Your task to perform on an android device: move an email to a new category in the gmail app Image 0: 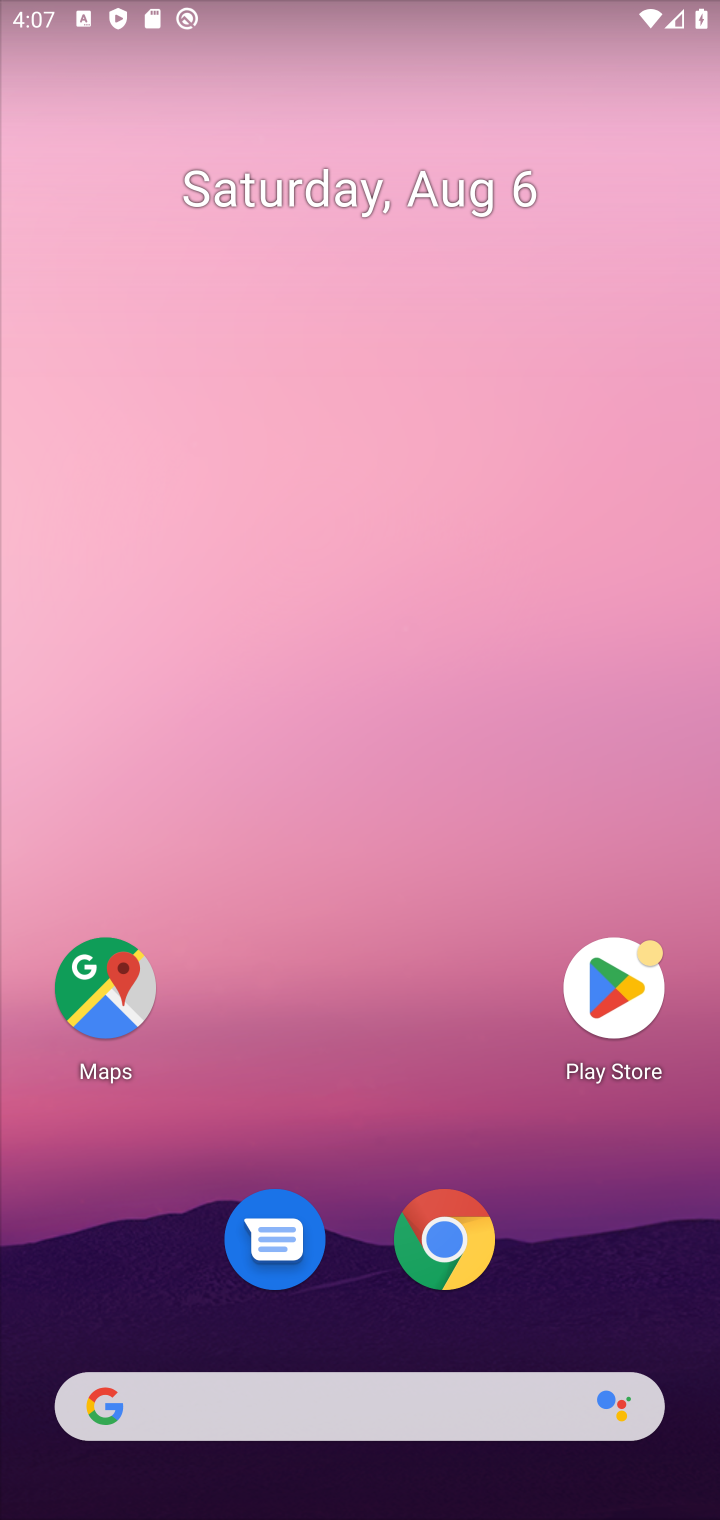
Step 0: drag from (444, 1397) to (546, 216)
Your task to perform on an android device: move an email to a new category in the gmail app Image 1: 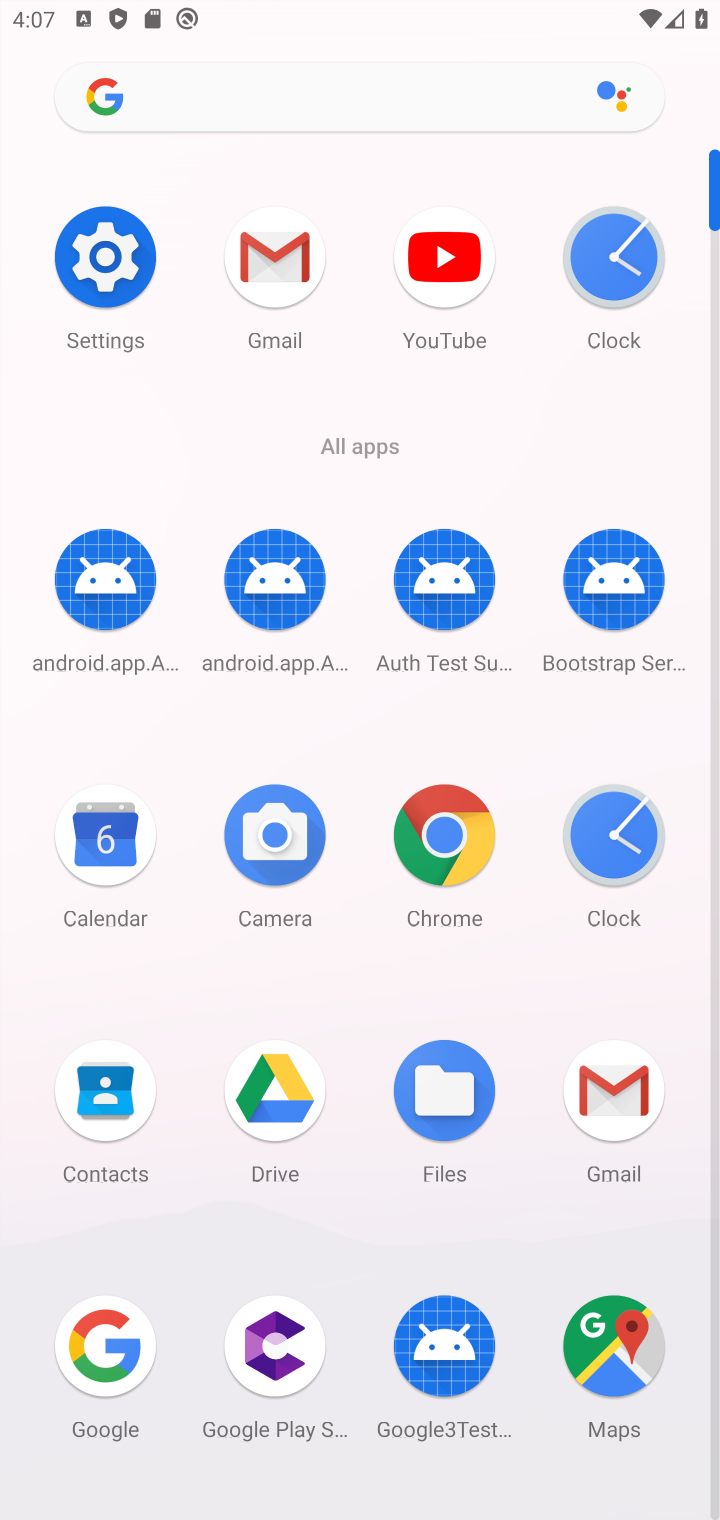
Step 1: click (600, 1097)
Your task to perform on an android device: move an email to a new category in the gmail app Image 2: 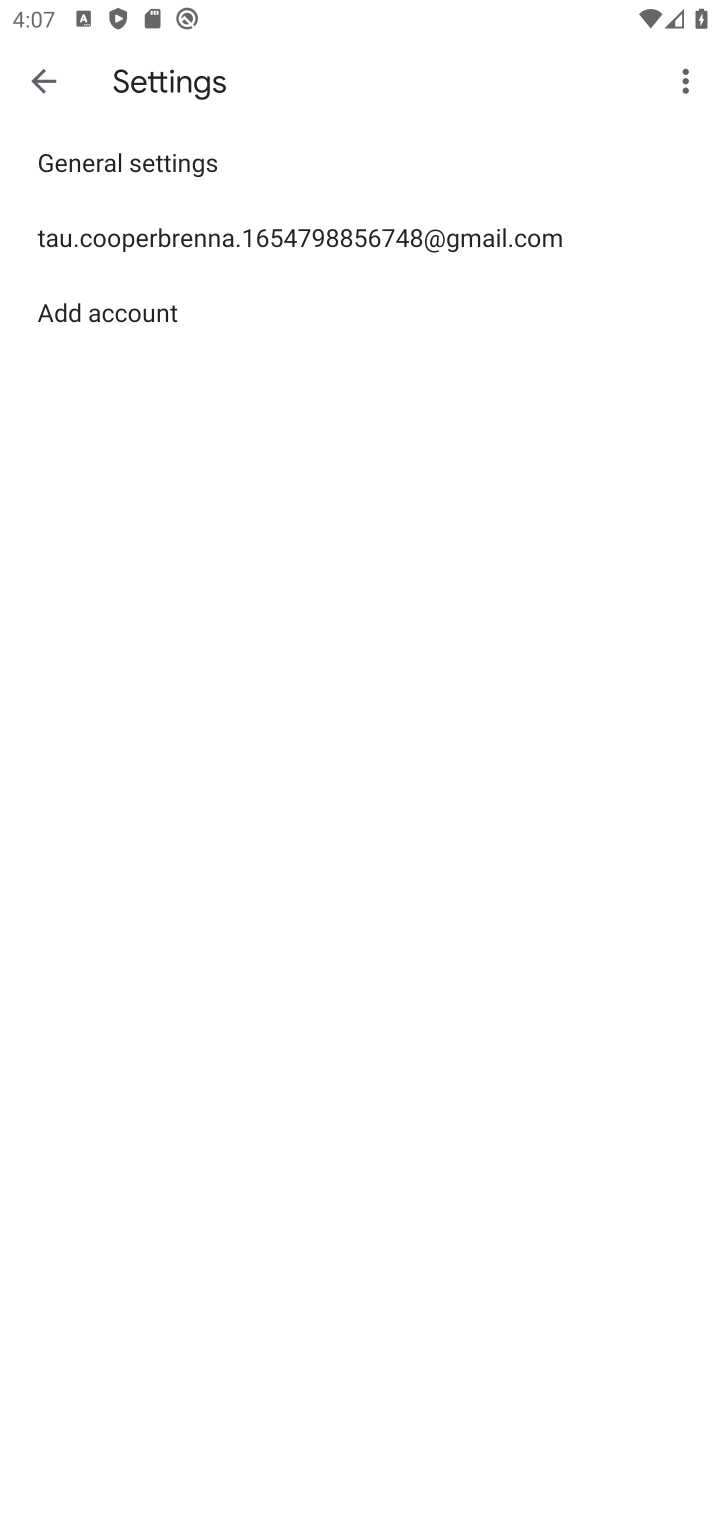
Step 2: press back button
Your task to perform on an android device: move an email to a new category in the gmail app Image 3: 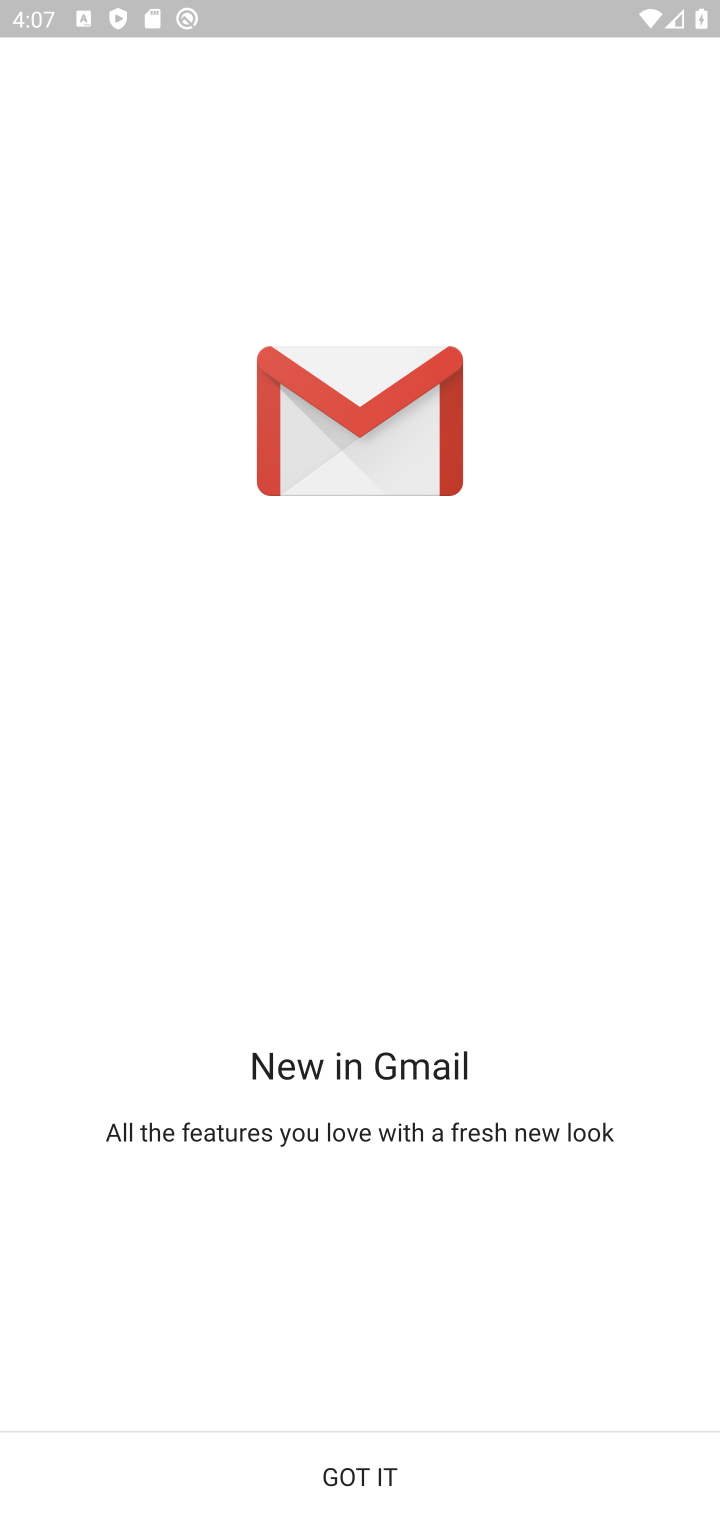
Step 3: click (393, 1453)
Your task to perform on an android device: move an email to a new category in the gmail app Image 4: 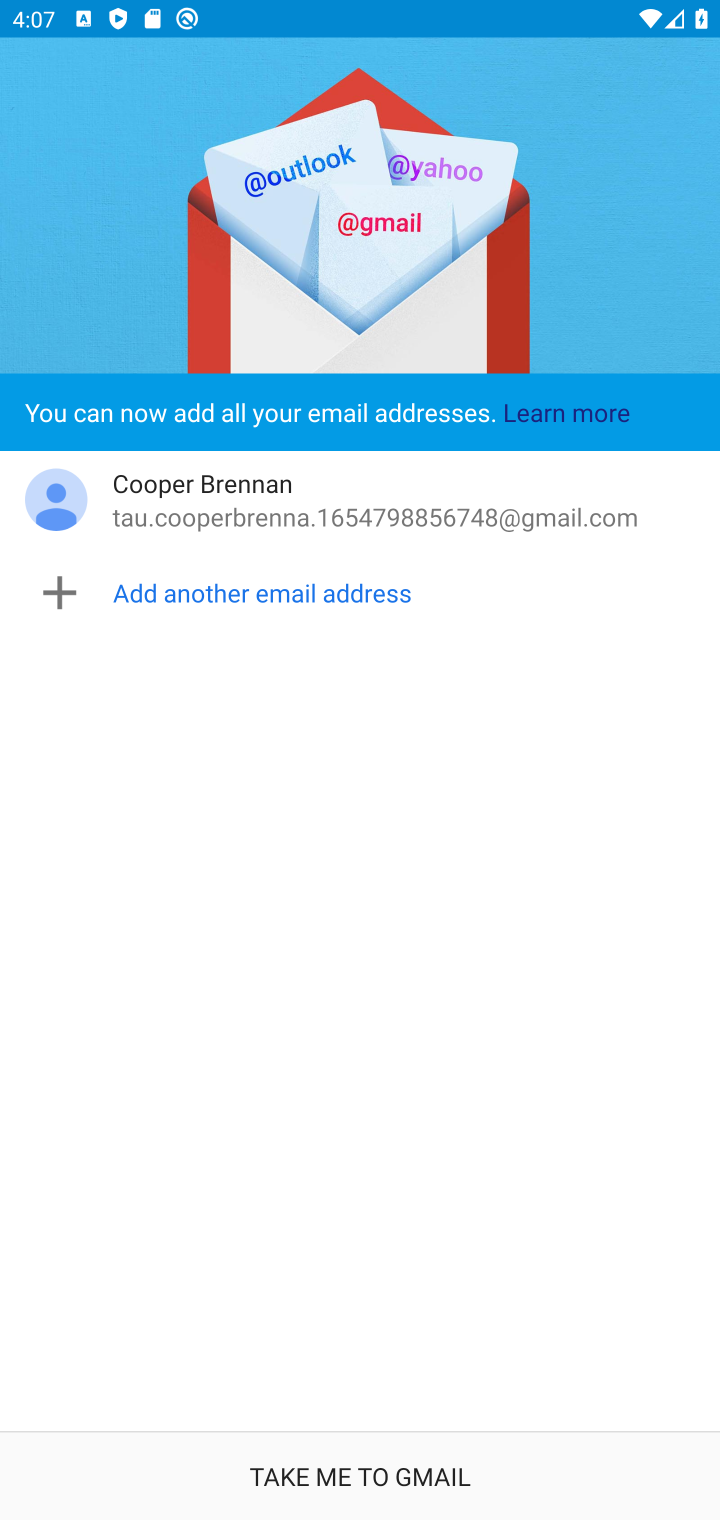
Step 4: click (393, 1474)
Your task to perform on an android device: move an email to a new category in the gmail app Image 5: 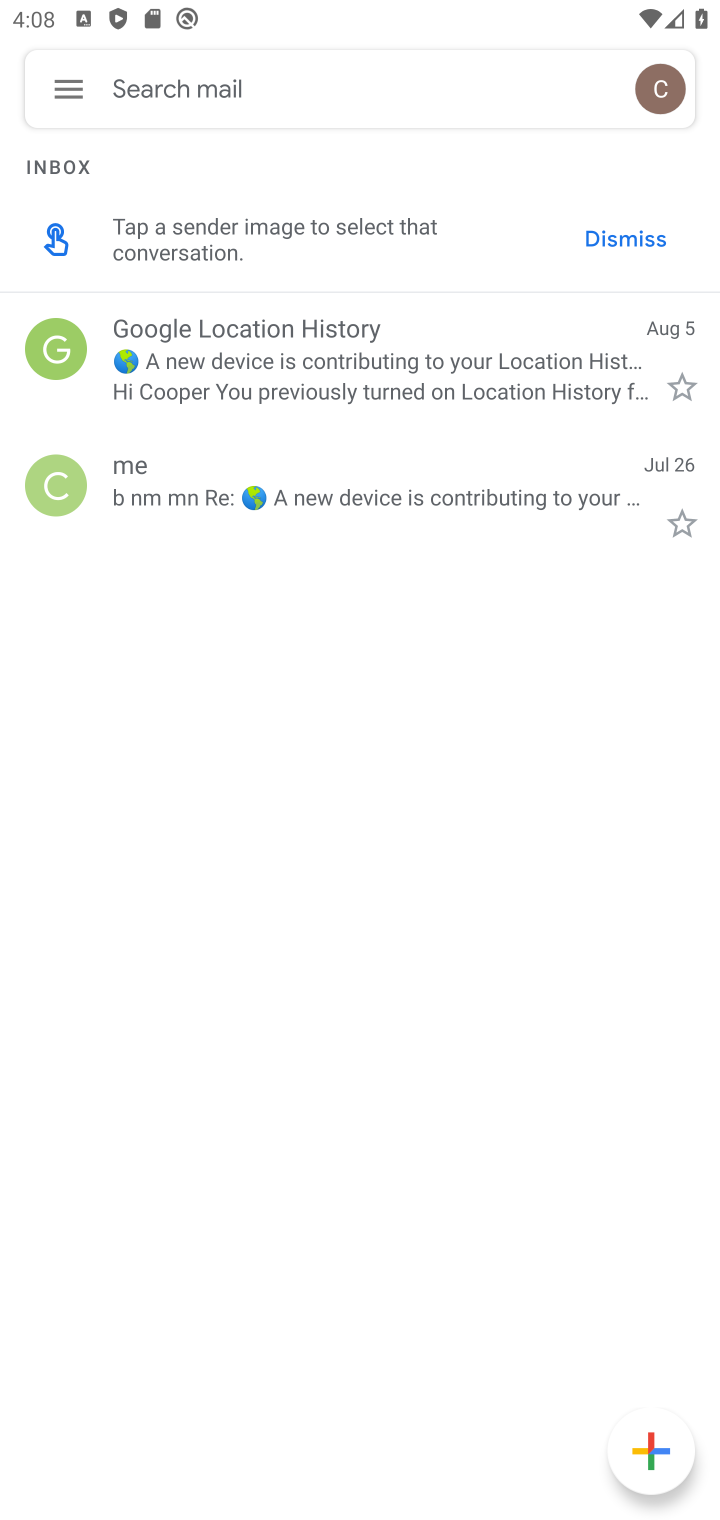
Step 5: click (75, 82)
Your task to perform on an android device: move an email to a new category in the gmail app Image 6: 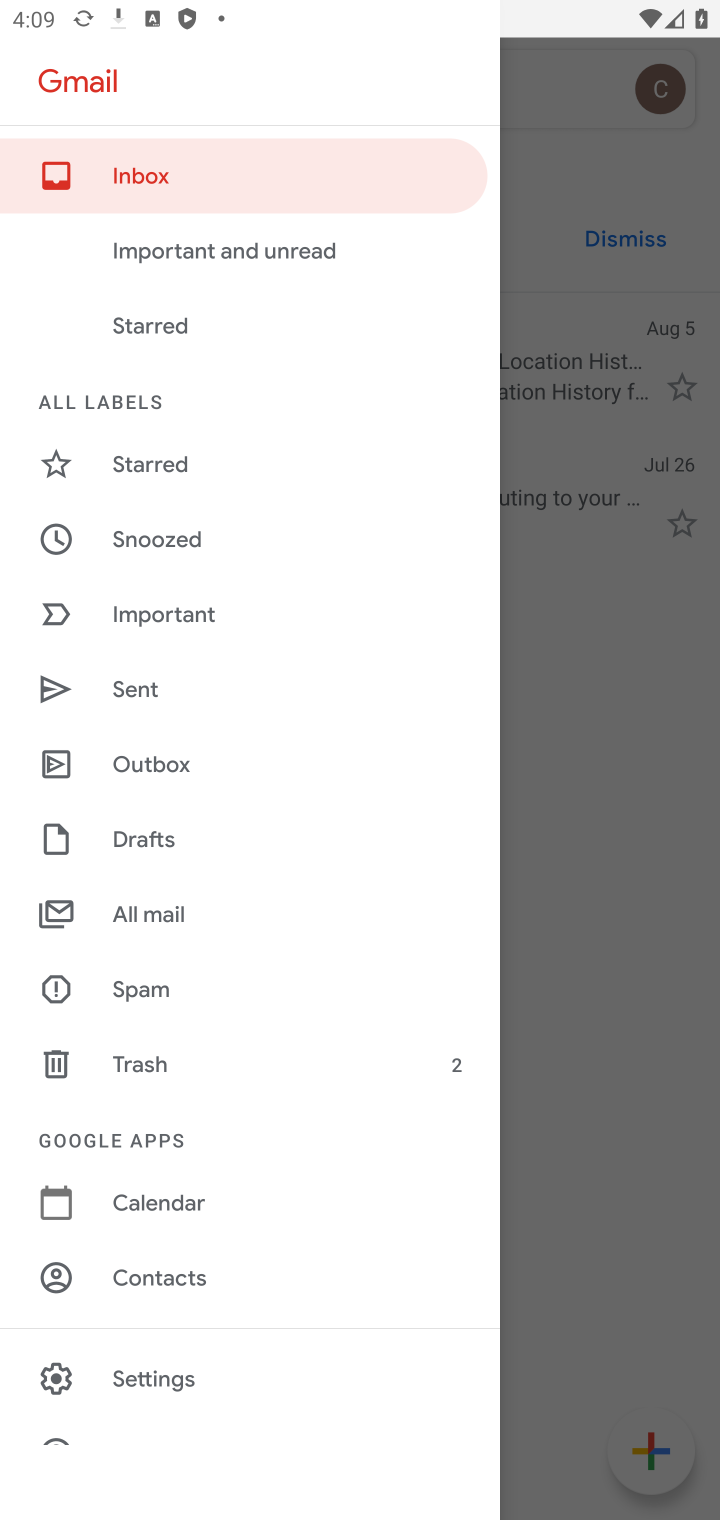
Step 6: click (706, 574)
Your task to perform on an android device: move an email to a new category in the gmail app Image 7: 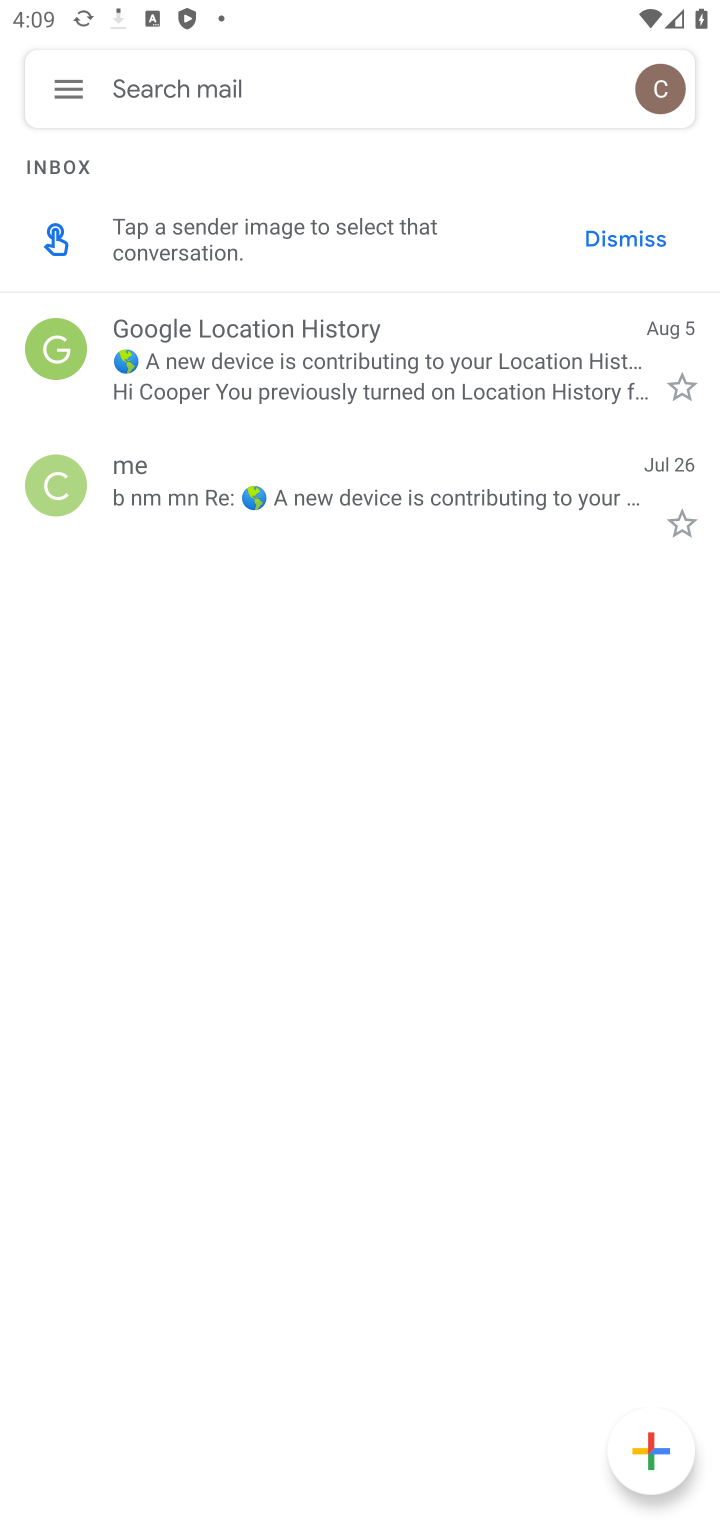
Step 7: click (602, 348)
Your task to perform on an android device: move an email to a new category in the gmail app Image 8: 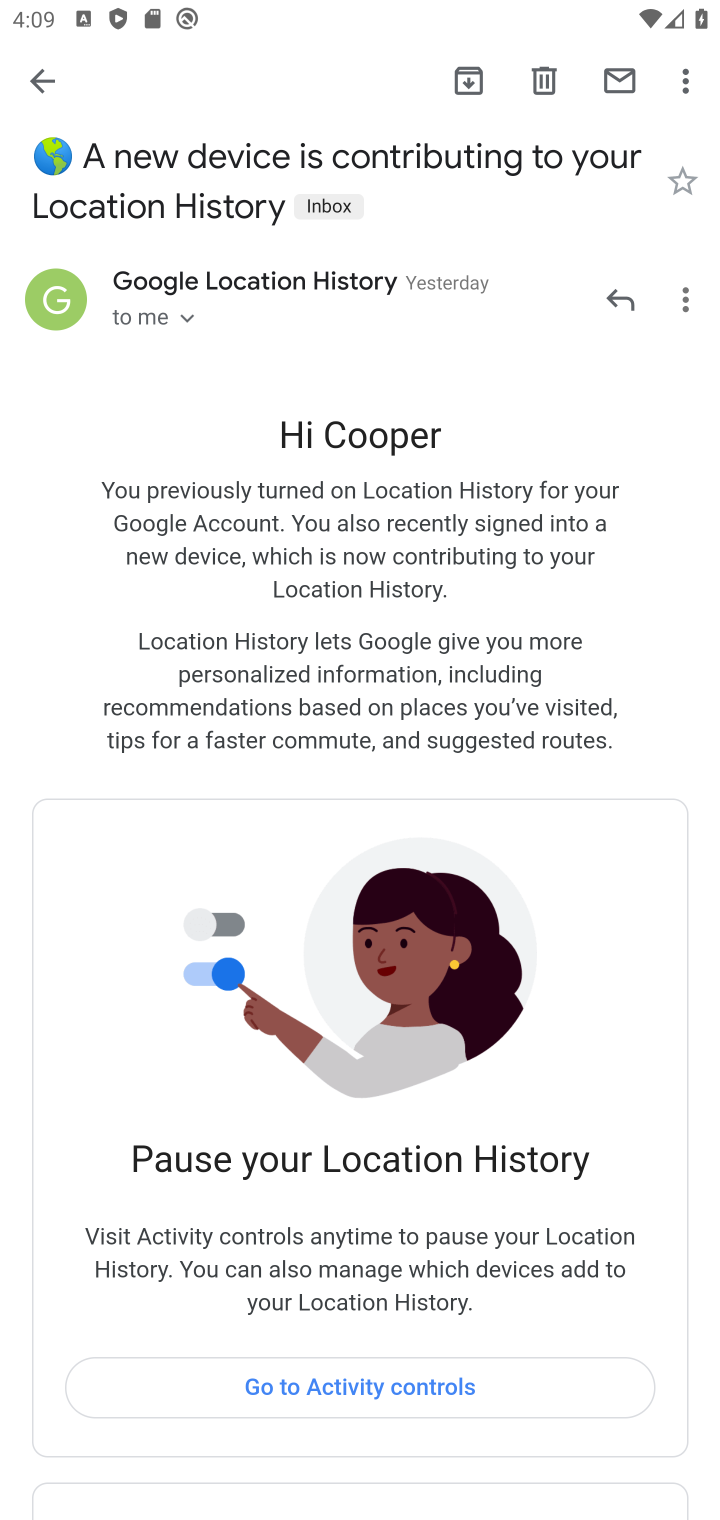
Step 8: click (677, 72)
Your task to perform on an android device: move an email to a new category in the gmail app Image 9: 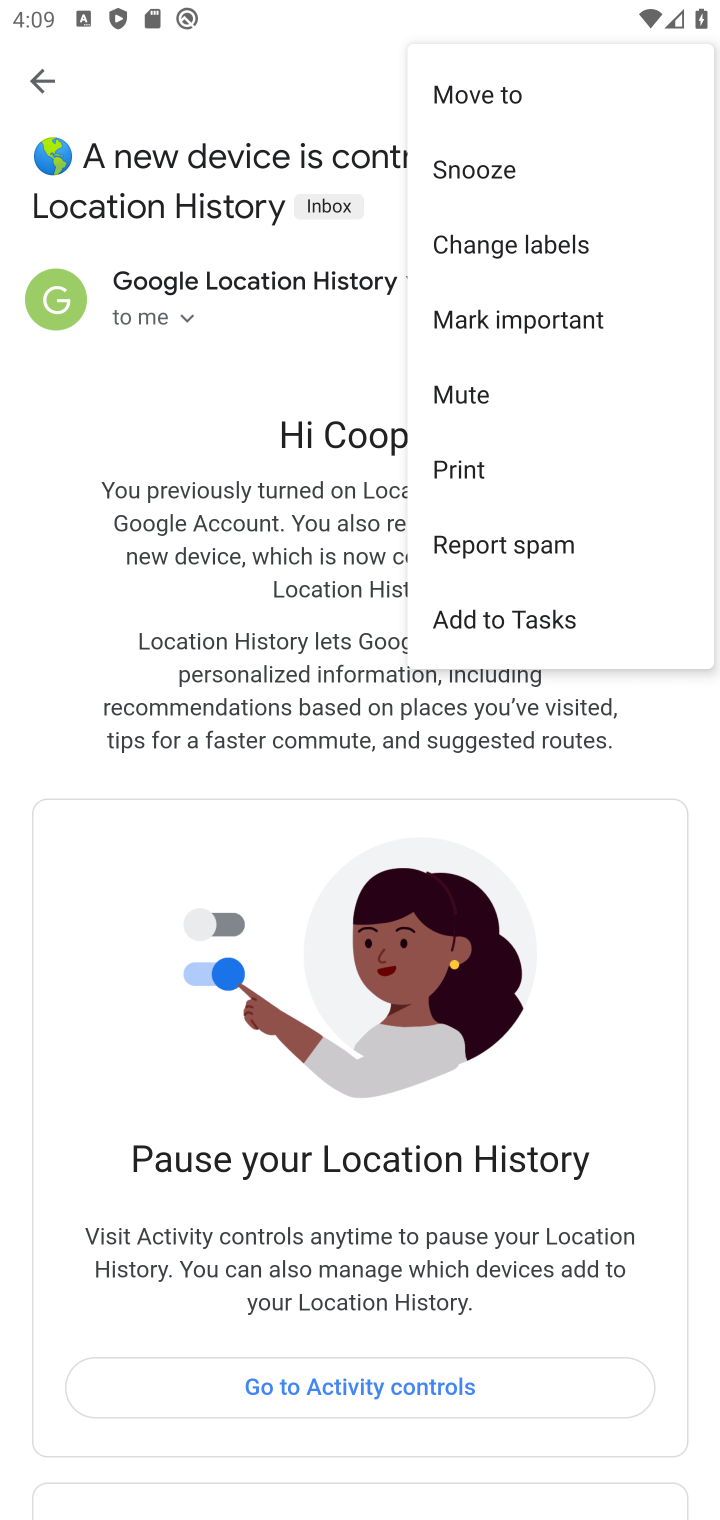
Step 9: click (492, 216)
Your task to perform on an android device: move an email to a new category in the gmail app Image 10: 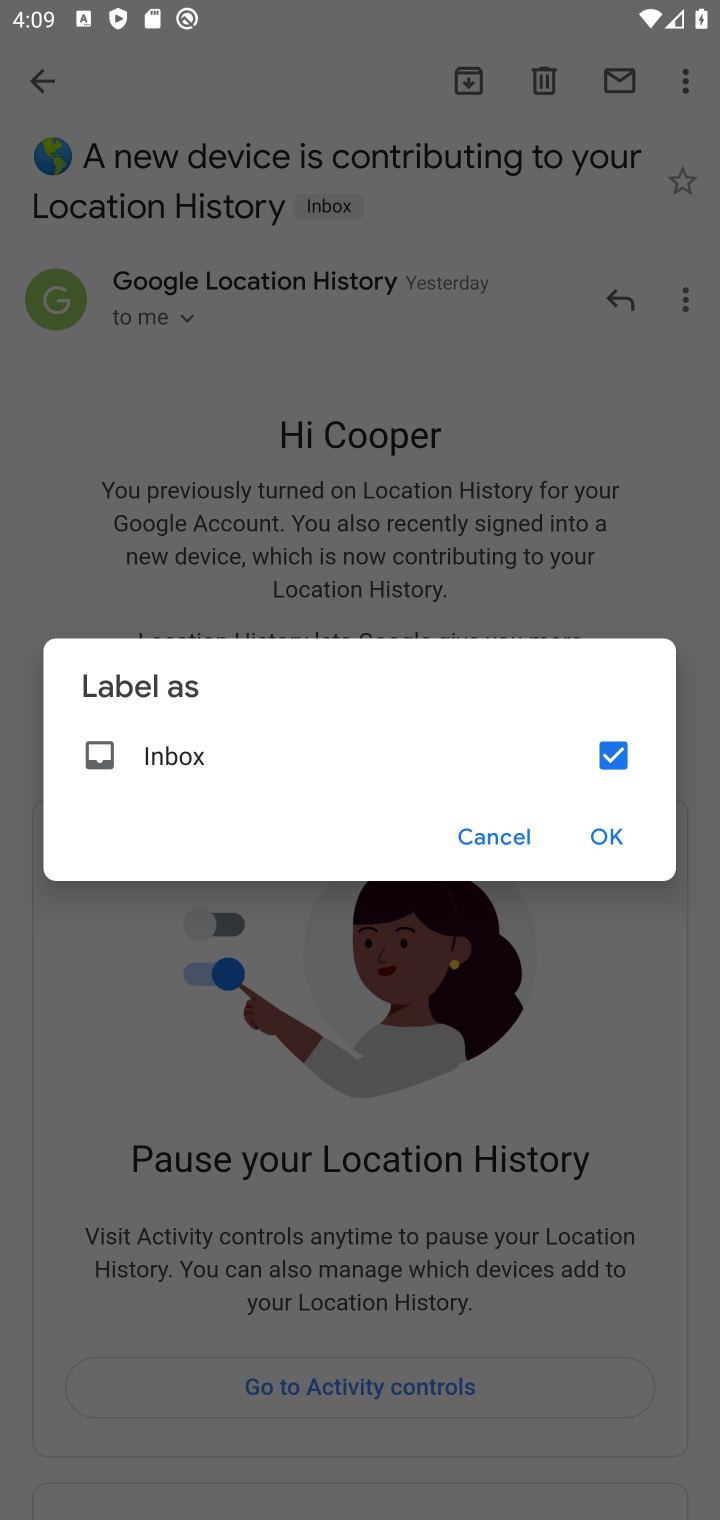
Step 10: click (606, 835)
Your task to perform on an android device: move an email to a new category in the gmail app Image 11: 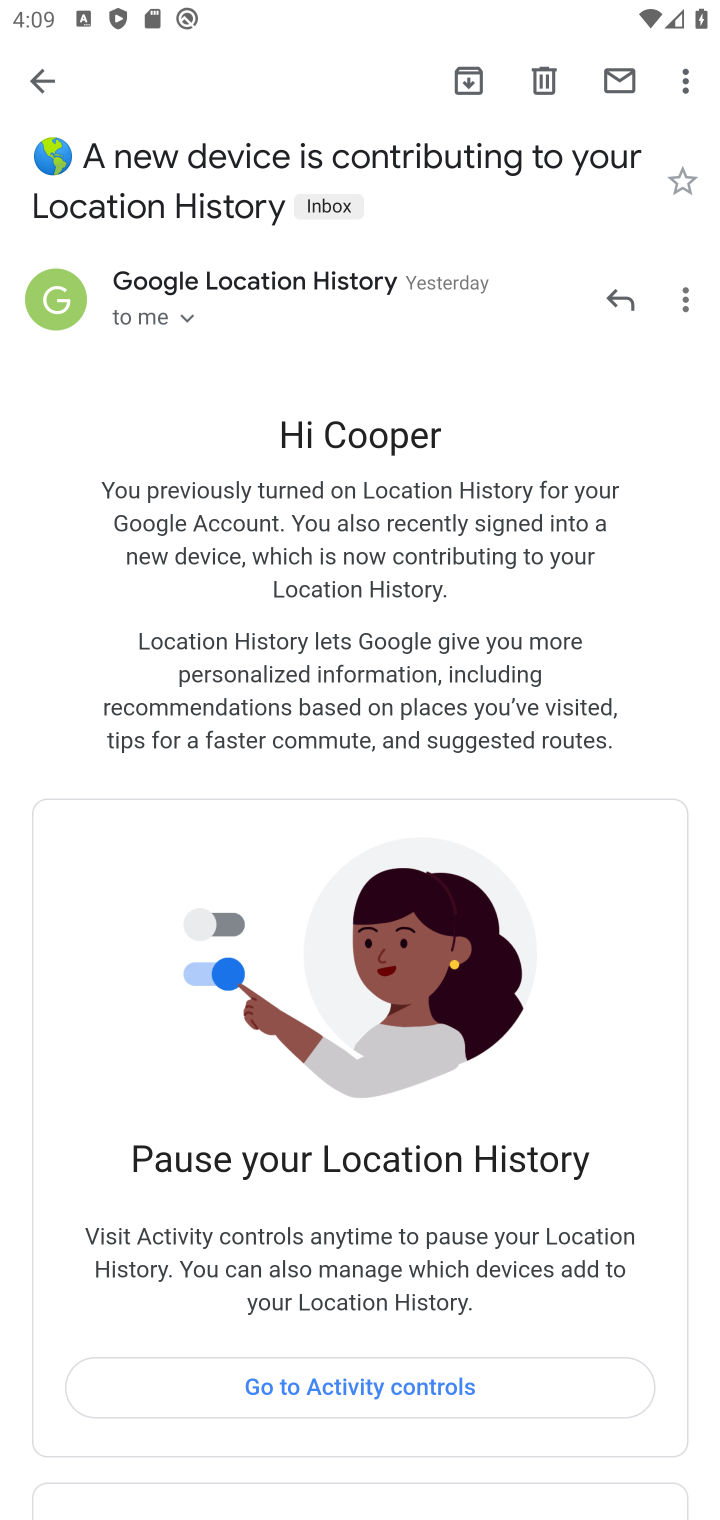
Step 11: task complete